Your task to perform on an android device: add a contact in the contacts app Image 0: 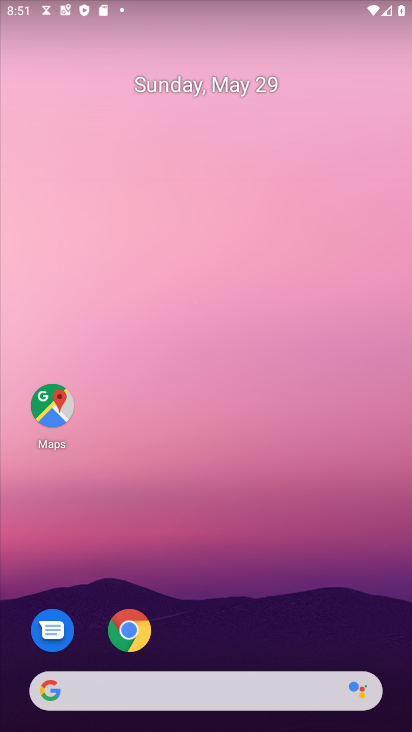
Step 0: drag from (221, 621) to (238, 249)
Your task to perform on an android device: add a contact in the contacts app Image 1: 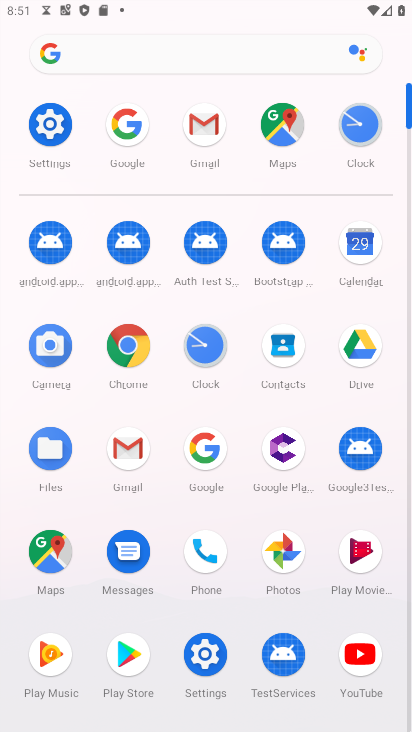
Step 1: click (288, 355)
Your task to perform on an android device: add a contact in the contacts app Image 2: 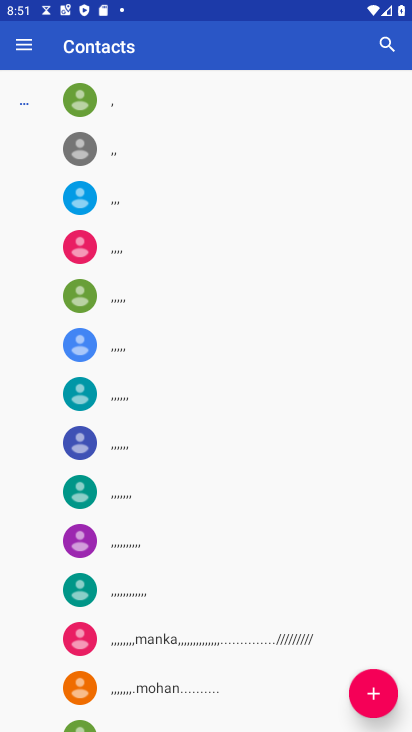
Step 2: click (375, 708)
Your task to perform on an android device: add a contact in the contacts app Image 3: 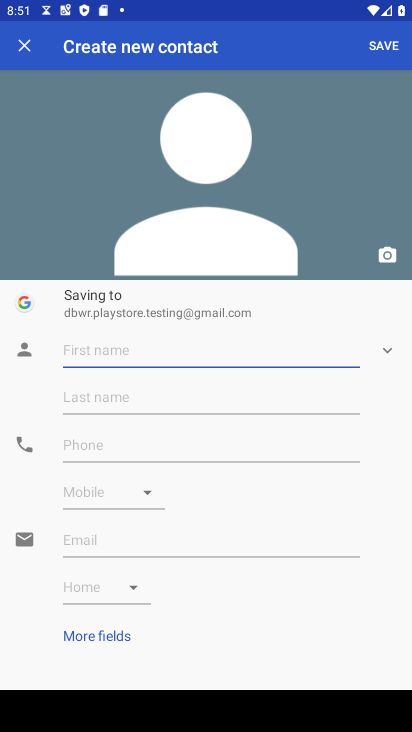
Step 3: type "jhjv"
Your task to perform on an android device: add a contact in the contacts app Image 4: 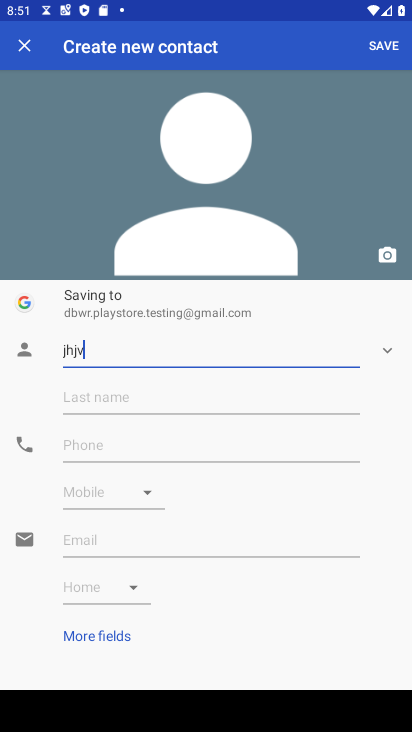
Step 4: click (122, 454)
Your task to perform on an android device: add a contact in the contacts app Image 5: 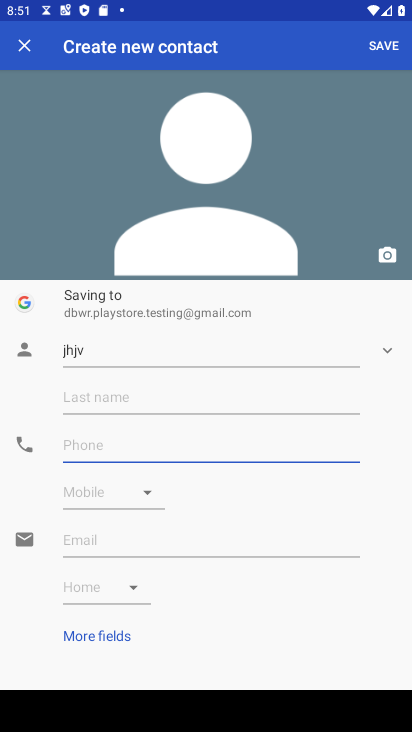
Step 5: type "657657"
Your task to perform on an android device: add a contact in the contacts app Image 6: 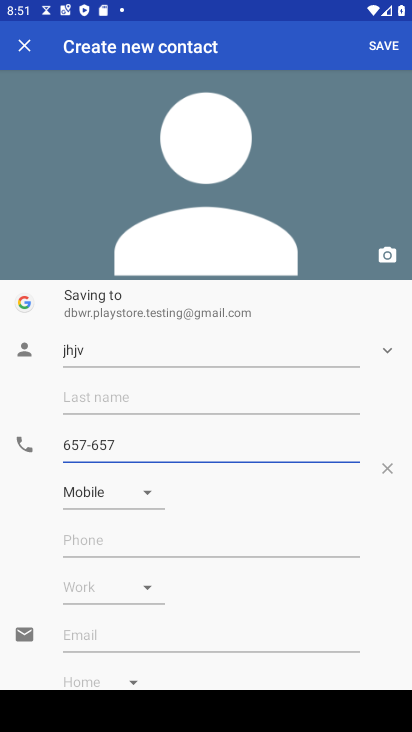
Step 6: click (383, 45)
Your task to perform on an android device: add a contact in the contacts app Image 7: 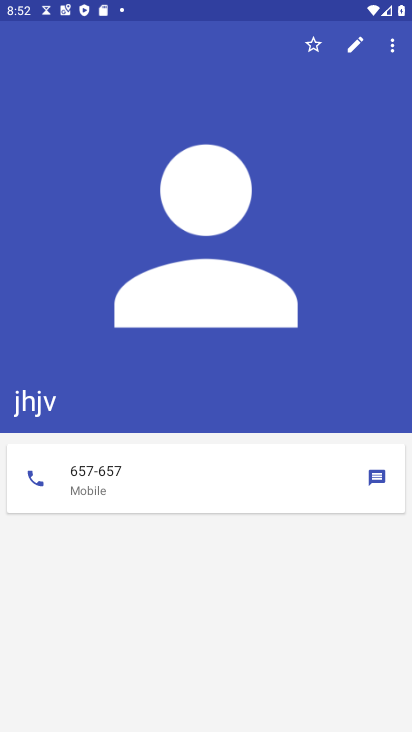
Step 7: task complete